Your task to perform on an android device: Do I have any events this weekend? Image 0: 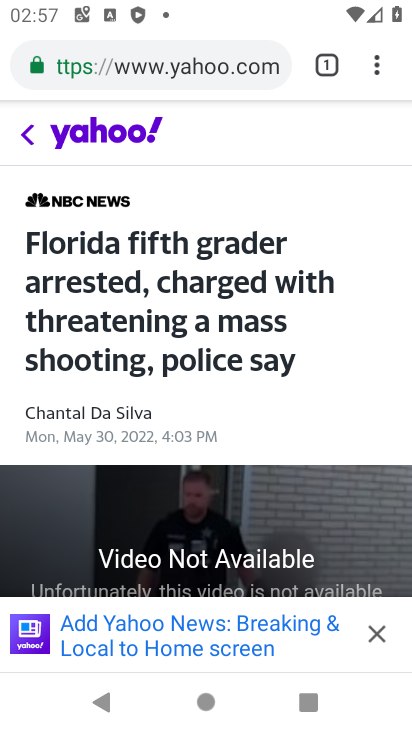
Step 0: press home button
Your task to perform on an android device: Do I have any events this weekend? Image 1: 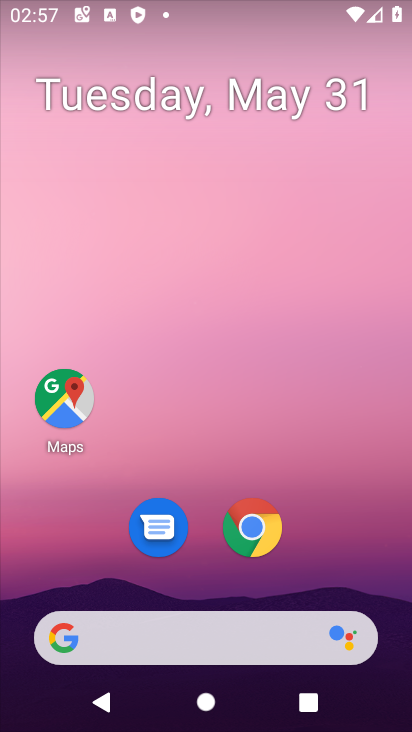
Step 1: drag from (385, 603) to (320, 85)
Your task to perform on an android device: Do I have any events this weekend? Image 2: 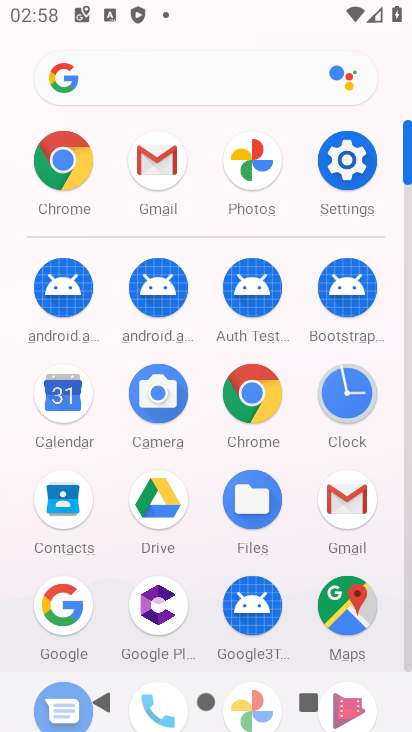
Step 2: click (409, 652)
Your task to perform on an android device: Do I have any events this weekend? Image 3: 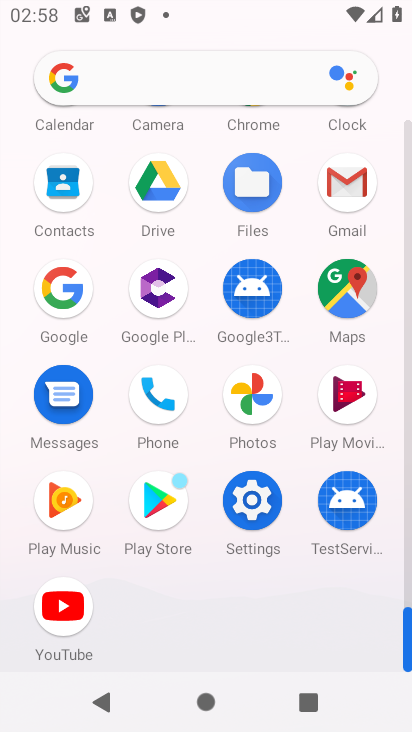
Step 3: click (410, 191)
Your task to perform on an android device: Do I have any events this weekend? Image 4: 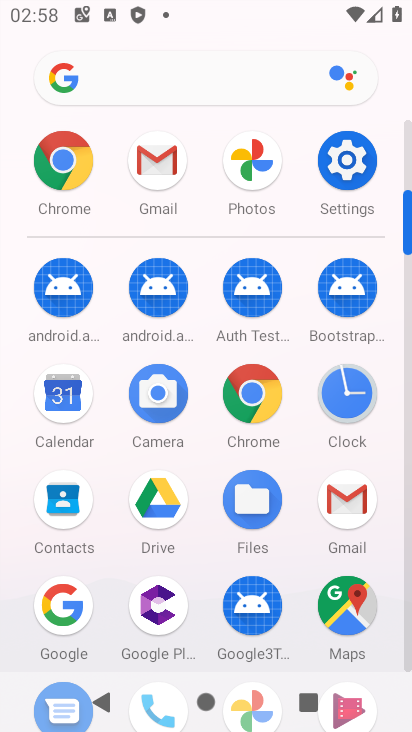
Step 4: click (63, 395)
Your task to perform on an android device: Do I have any events this weekend? Image 5: 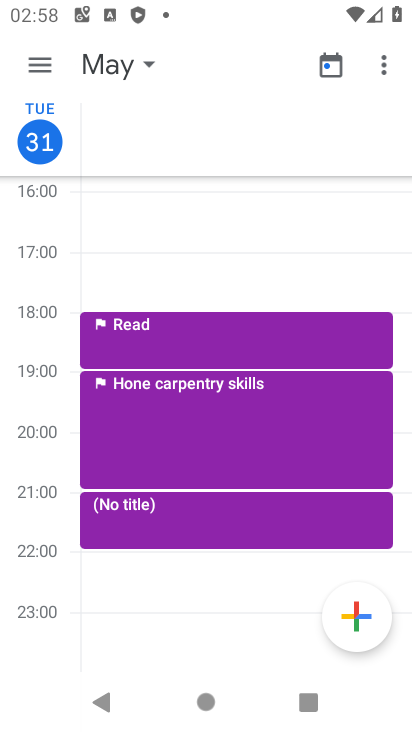
Step 5: click (36, 61)
Your task to perform on an android device: Do I have any events this weekend? Image 6: 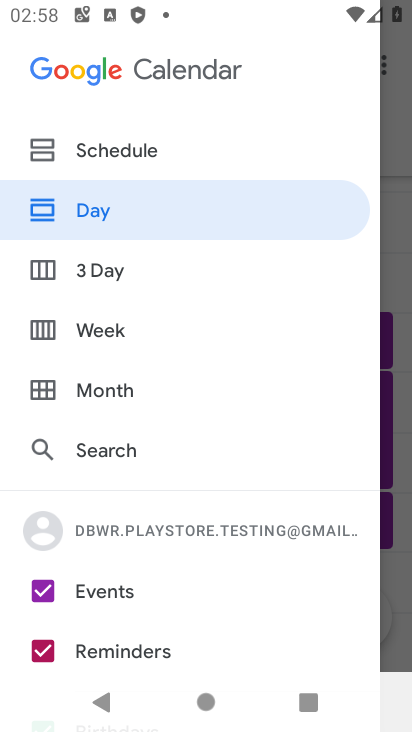
Step 6: click (113, 331)
Your task to perform on an android device: Do I have any events this weekend? Image 7: 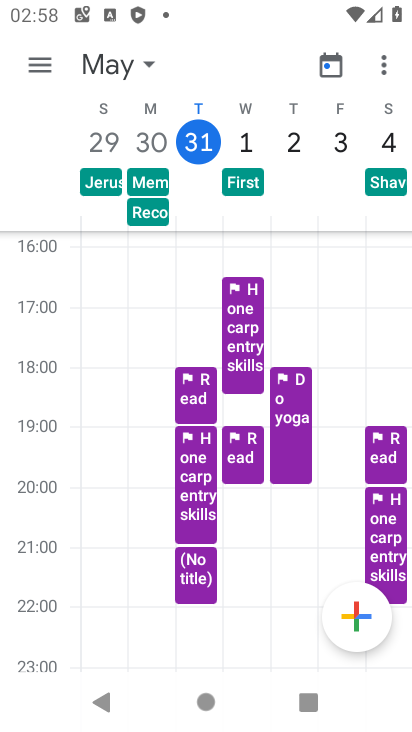
Step 7: task complete